Your task to perform on an android device: toggle pop-ups in chrome Image 0: 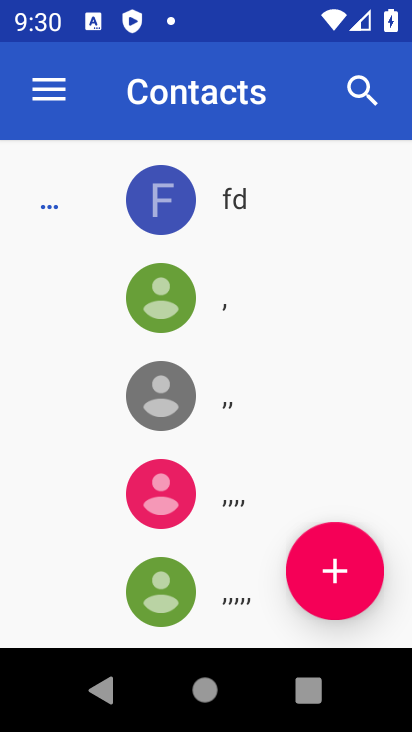
Step 0: press home button
Your task to perform on an android device: toggle pop-ups in chrome Image 1: 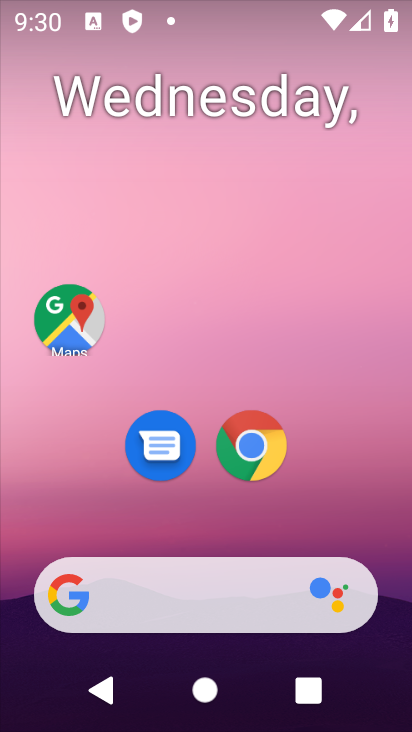
Step 1: drag from (323, 484) to (346, 99)
Your task to perform on an android device: toggle pop-ups in chrome Image 2: 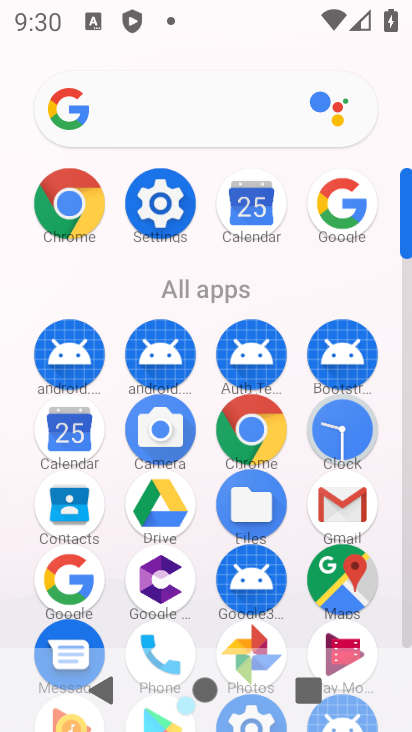
Step 2: click (95, 210)
Your task to perform on an android device: toggle pop-ups in chrome Image 3: 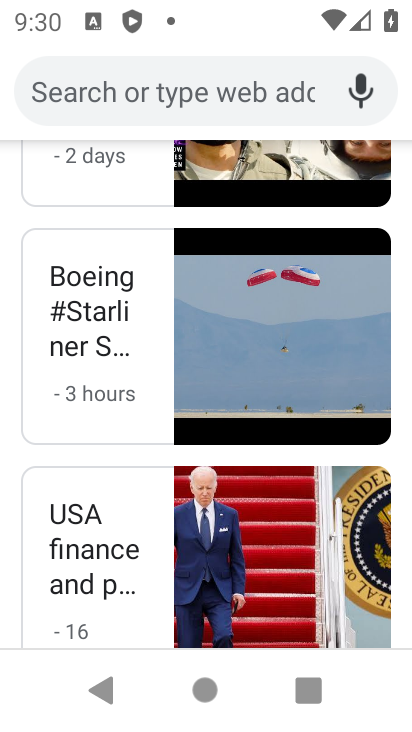
Step 3: drag from (95, 210) to (218, 651)
Your task to perform on an android device: toggle pop-ups in chrome Image 4: 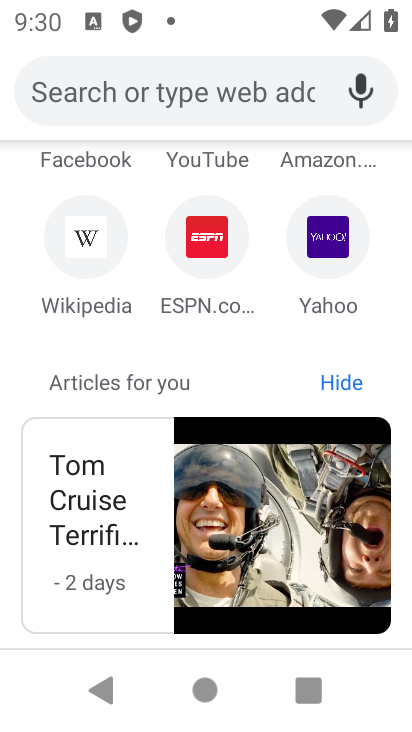
Step 4: drag from (142, 218) to (279, 657)
Your task to perform on an android device: toggle pop-ups in chrome Image 5: 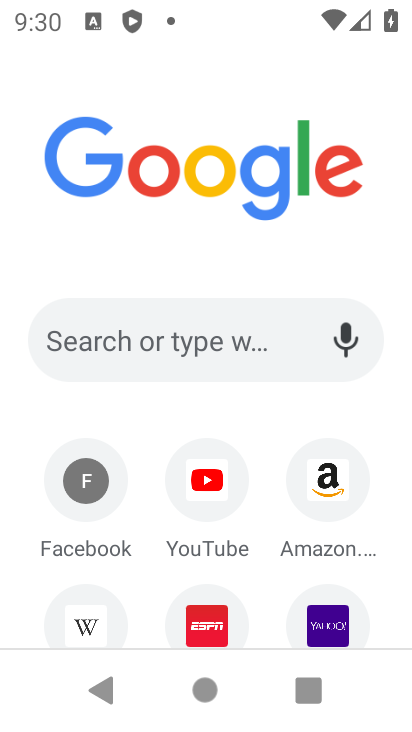
Step 5: drag from (239, 144) to (355, 590)
Your task to perform on an android device: toggle pop-ups in chrome Image 6: 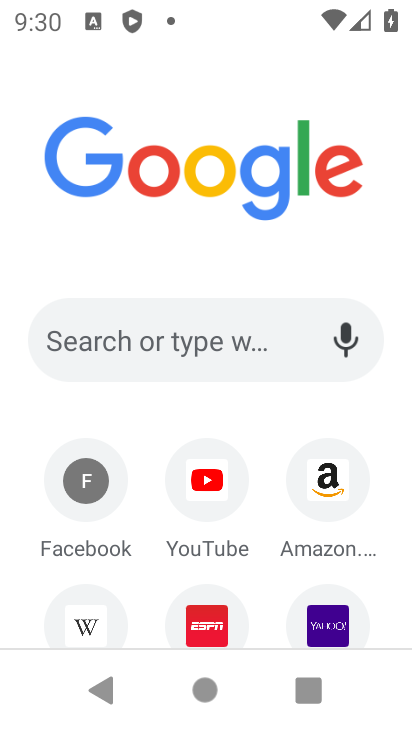
Step 6: drag from (346, 164) to (308, 679)
Your task to perform on an android device: toggle pop-ups in chrome Image 7: 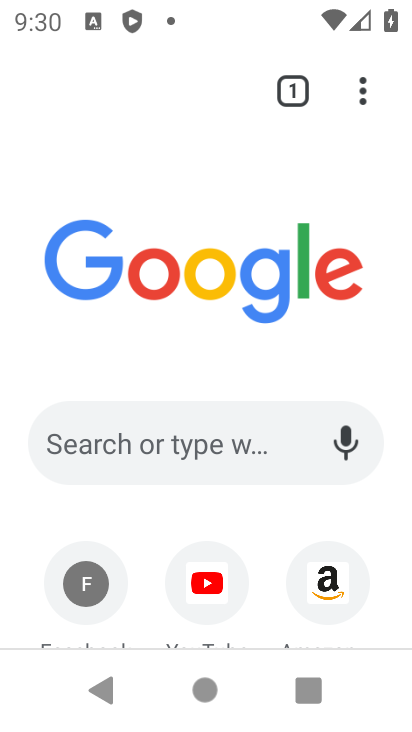
Step 7: drag from (360, 115) to (208, 458)
Your task to perform on an android device: toggle pop-ups in chrome Image 8: 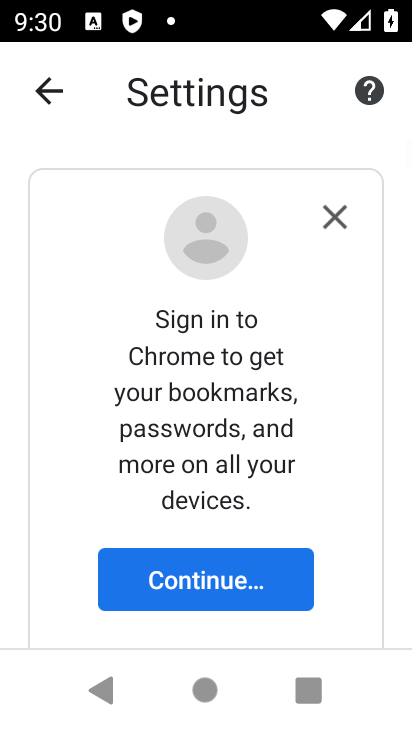
Step 8: drag from (285, 643) to (238, 256)
Your task to perform on an android device: toggle pop-ups in chrome Image 9: 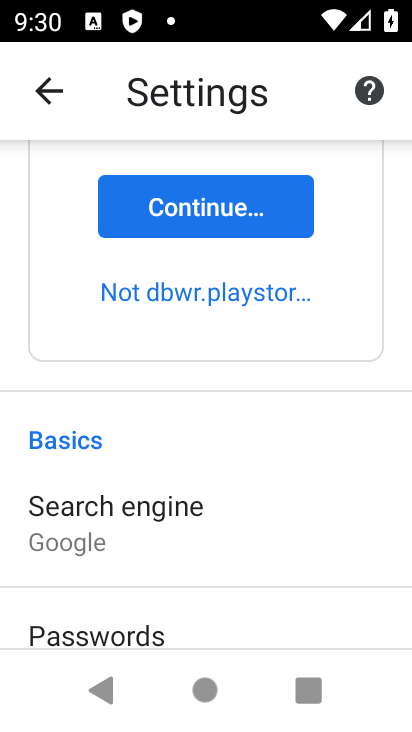
Step 9: drag from (298, 636) to (282, 229)
Your task to perform on an android device: toggle pop-ups in chrome Image 10: 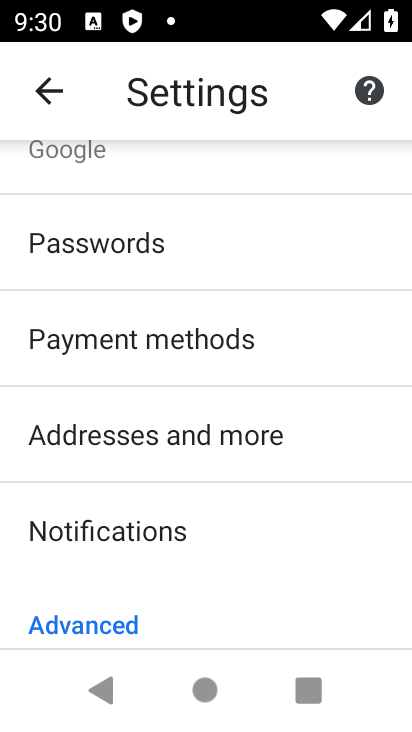
Step 10: drag from (266, 604) to (241, 209)
Your task to perform on an android device: toggle pop-ups in chrome Image 11: 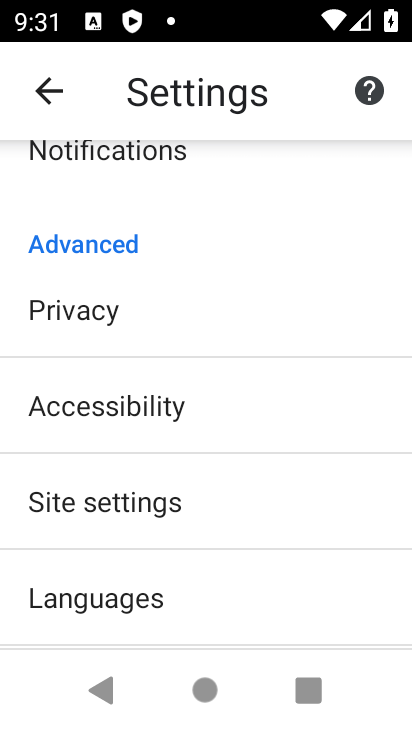
Step 11: click (197, 501)
Your task to perform on an android device: toggle pop-ups in chrome Image 12: 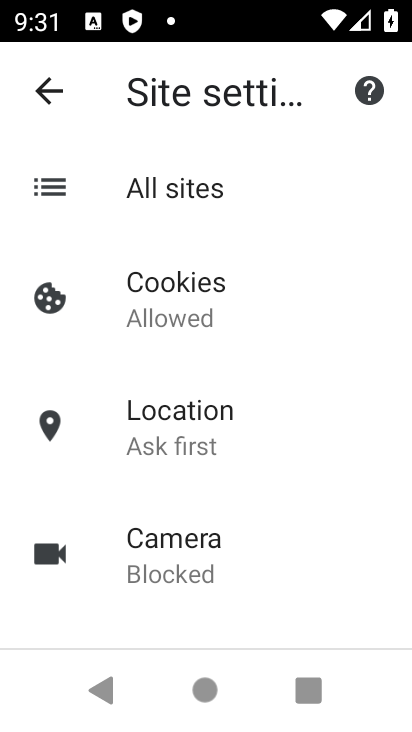
Step 12: drag from (215, 557) to (191, 226)
Your task to perform on an android device: toggle pop-ups in chrome Image 13: 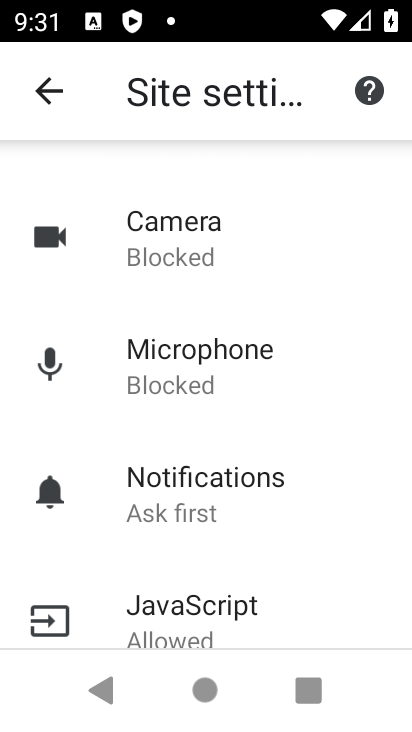
Step 13: drag from (210, 580) to (214, 289)
Your task to perform on an android device: toggle pop-ups in chrome Image 14: 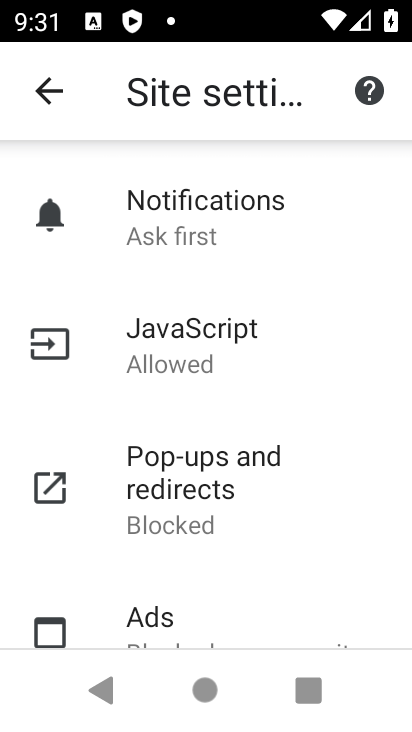
Step 14: click (193, 486)
Your task to perform on an android device: toggle pop-ups in chrome Image 15: 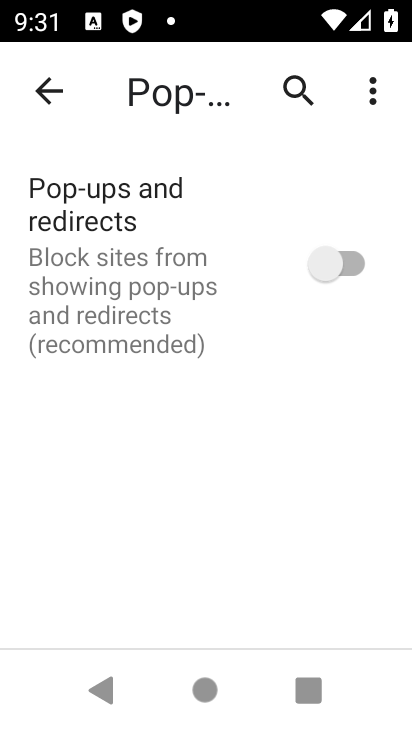
Step 15: click (327, 270)
Your task to perform on an android device: toggle pop-ups in chrome Image 16: 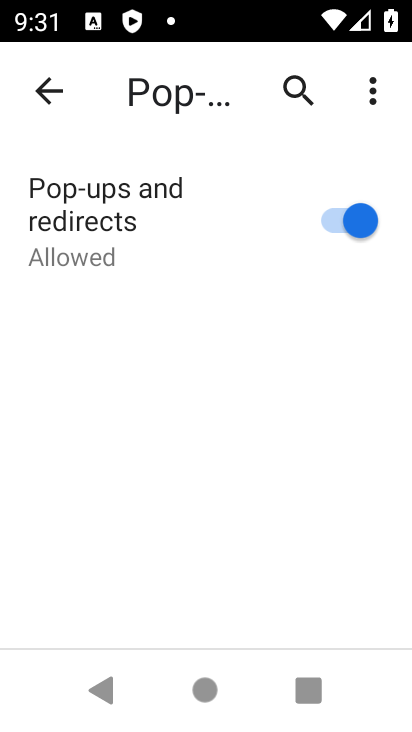
Step 16: task complete